Your task to perform on an android device: Open battery settings Image 0: 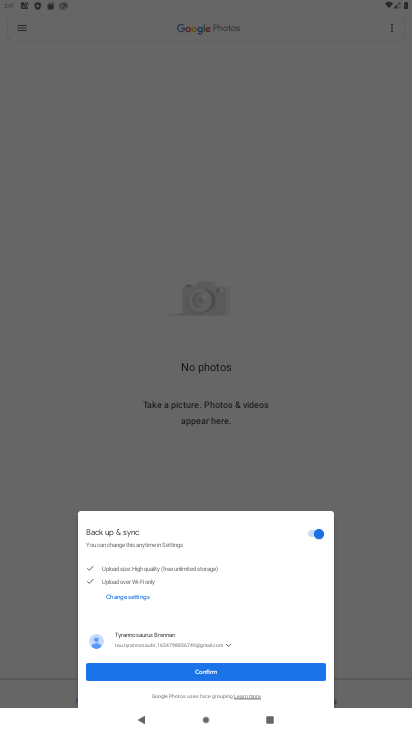
Step 0: press home button
Your task to perform on an android device: Open battery settings Image 1: 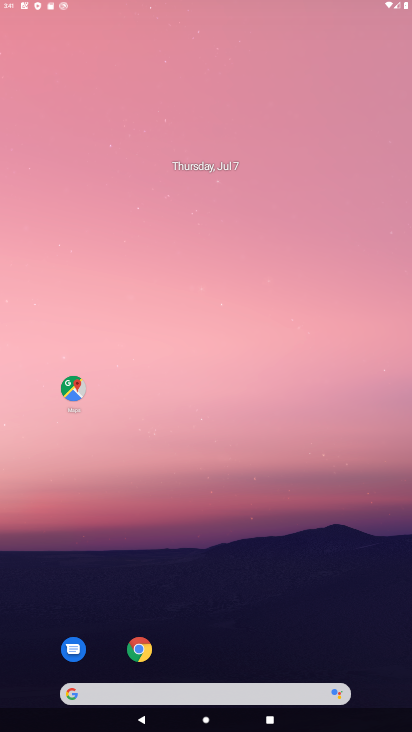
Step 1: drag from (380, 673) to (133, 40)
Your task to perform on an android device: Open battery settings Image 2: 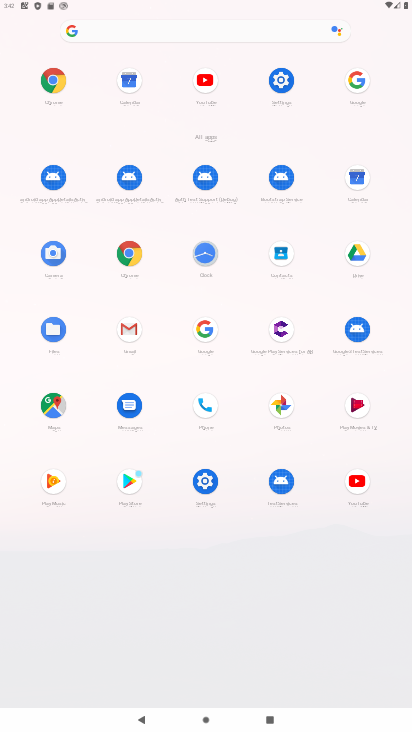
Step 2: click (284, 92)
Your task to perform on an android device: Open battery settings Image 3: 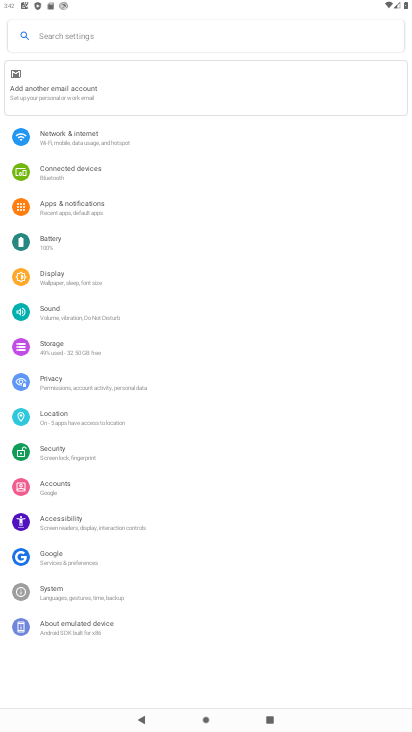
Step 3: click (68, 247)
Your task to perform on an android device: Open battery settings Image 4: 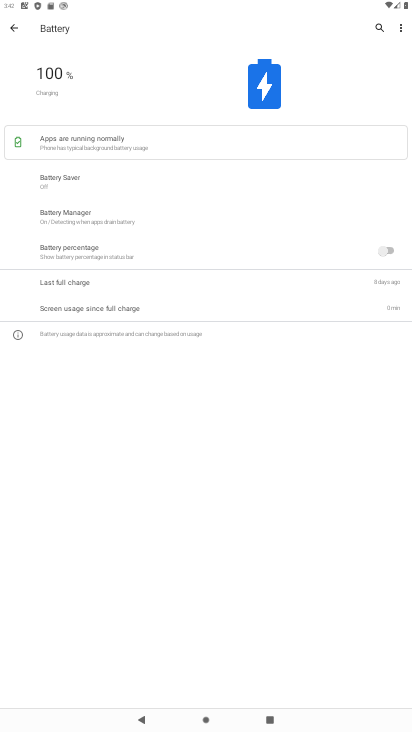
Step 4: task complete